Your task to perform on an android device: What is the news today? Image 0: 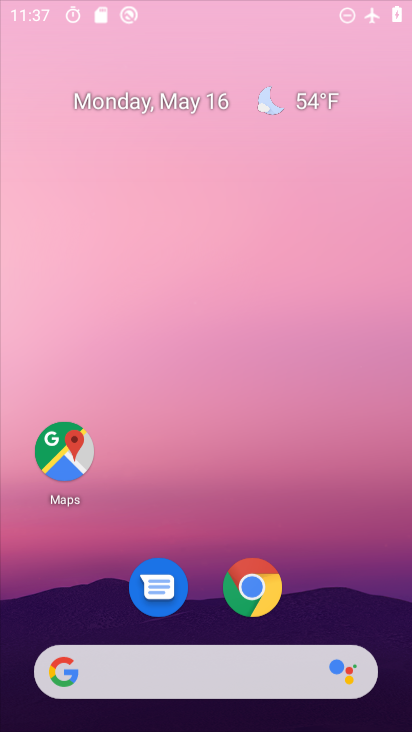
Step 0: drag from (197, 549) to (225, 193)
Your task to perform on an android device: What is the news today? Image 1: 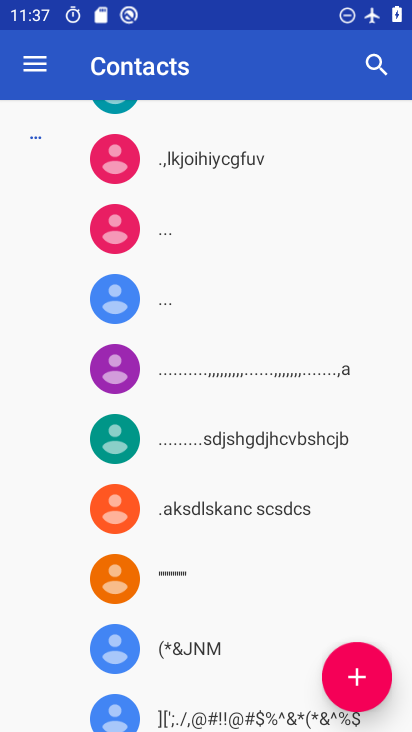
Step 1: press home button
Your task to perform on an android device: What is the news today? Image 2: 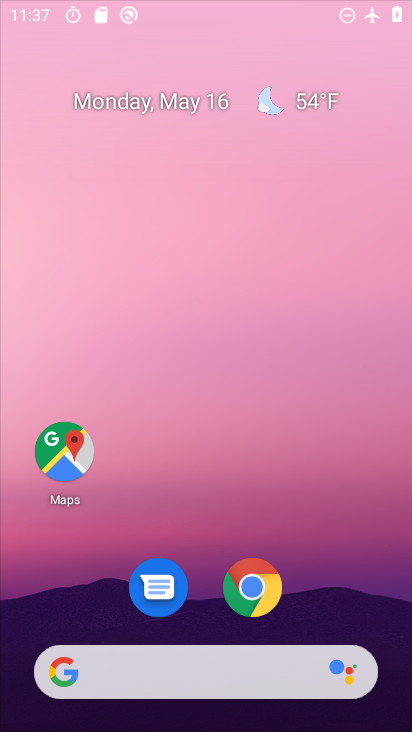
Step 2: drag from (202, 624) to (184, 25)
Your task to perform on an android device: What is the news today? Image 3: 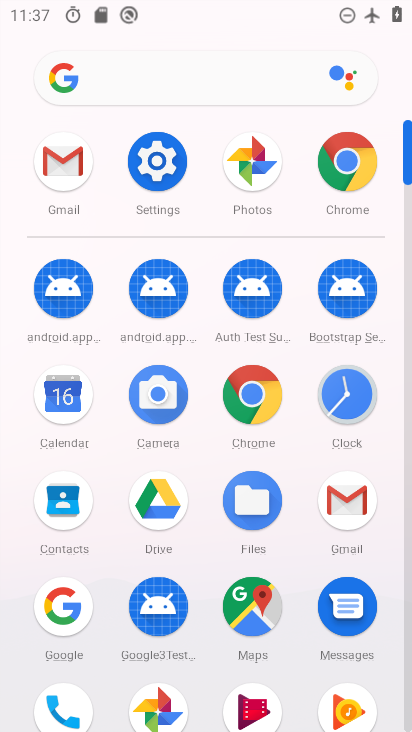
Step 3: drag from (198, 625) to (213, 278)
Your task to perform on an android device: What is the news today? Image 4: 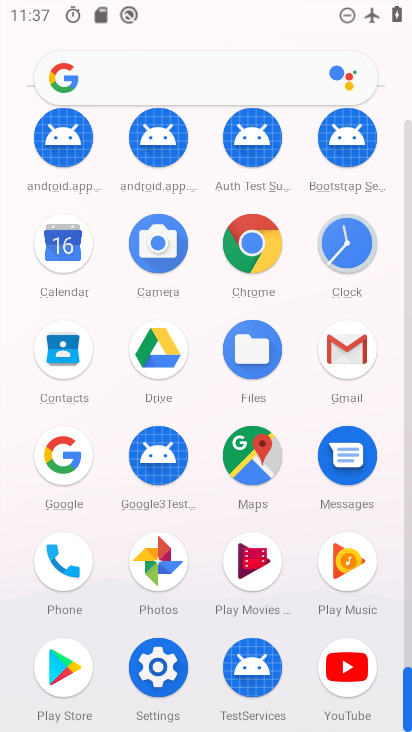
Step 4: click (132, 89)
Your task to perform on an android device: What is the news today? Image 5: 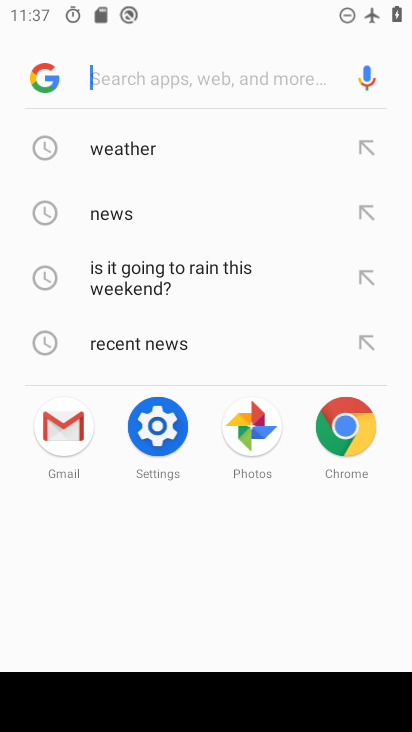
Step 5: click (195, 77)
Your task to perform on an android device: What is the news today? Image 6: 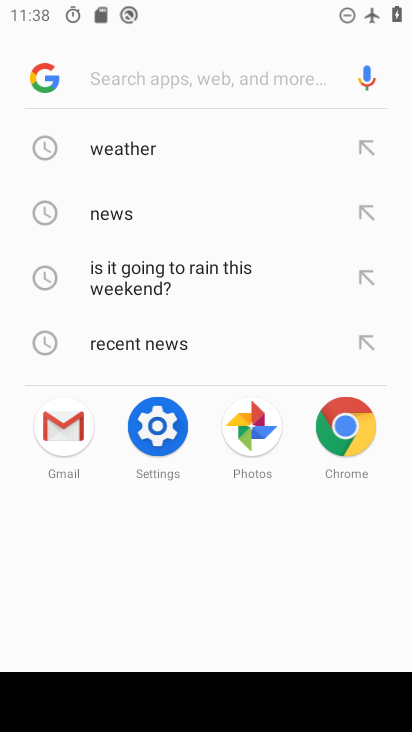
Step 6: type "news today"
Your task to perform on an android device: What is the news today? Image 7: 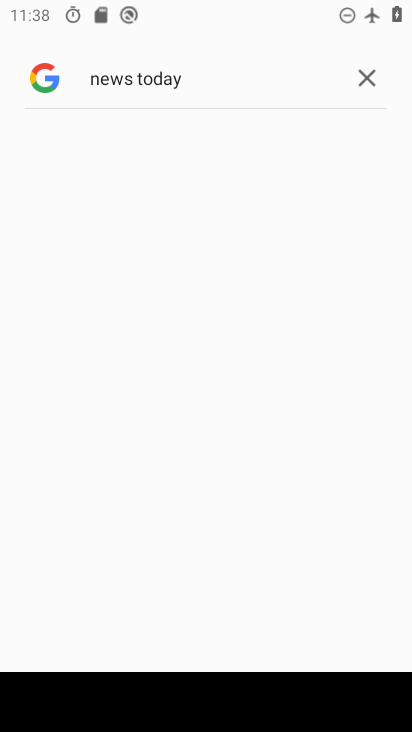
Step 7: click (149, 162)
Your task to perform on an android device: What is the news today? Image 8: 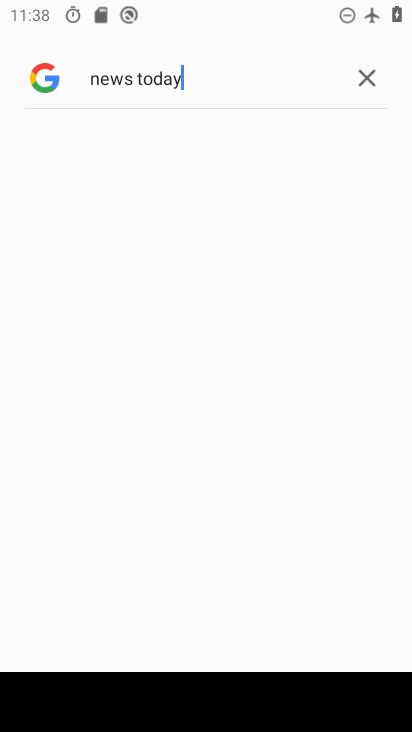
Step 8: task complete